Your task to perform on an android device: Open Chrome and go to settings Image 0: 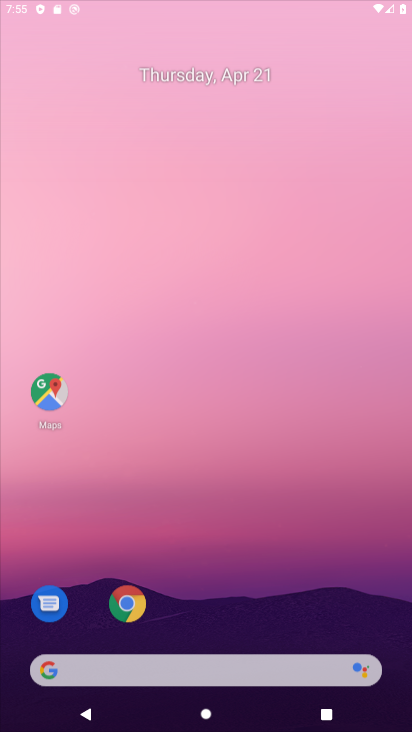
Step 0: drag from (234, 638) to (298, 191)
Your task to perform on an android device: Open Chrome and go to settings Image 1: 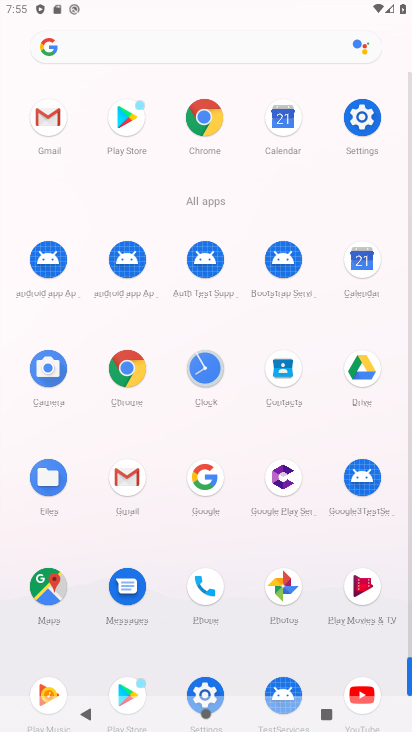
Step 1: click (357, 132)
Your task to perform on an android device: Open Chrome and go to settings Image 2: 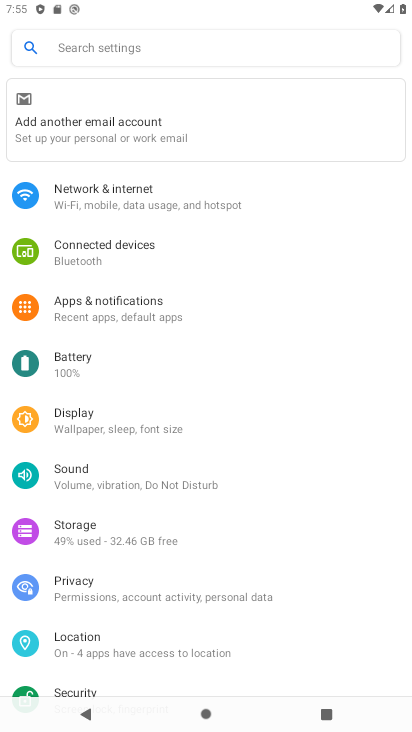
Step 2: press home button
Your task to perform on an android device: Open Chrome and go to settings Image 3: 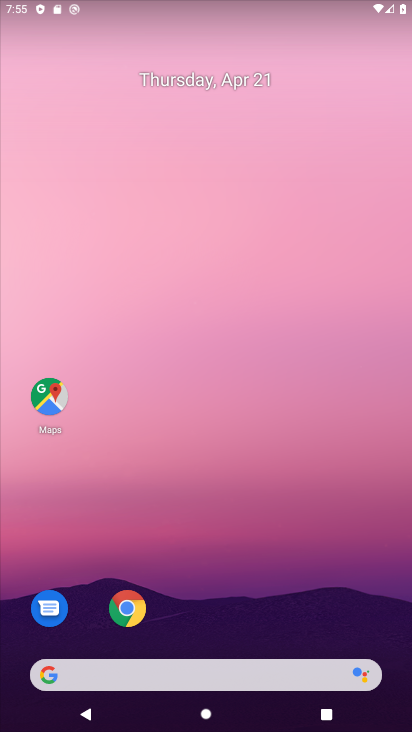
Step 3: click (127, 609)
Your task to perform on an android device: Open Chrome and go to settings Image 4: 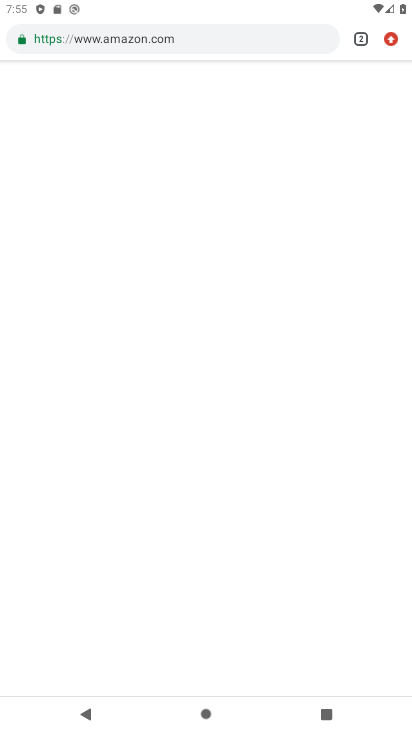
Step 4: click (393, 46)
Your task to perform on an android device: Open Chrome and go to settings Image 5: 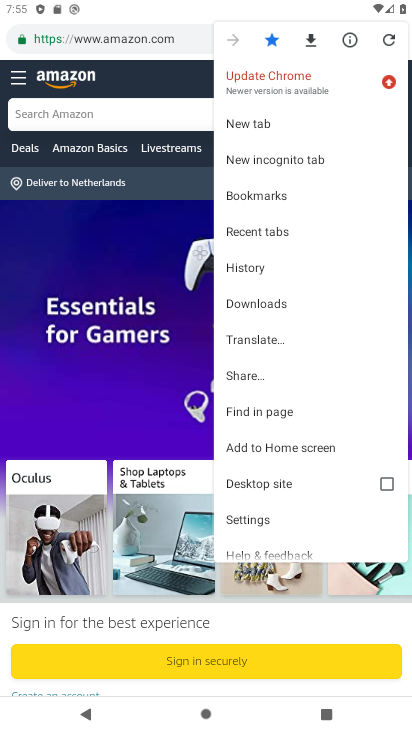
Step 5: drag from (248, 443) to (310, 199)
Your task to perform on an android device: Open Chrome and go to settings Image 6: 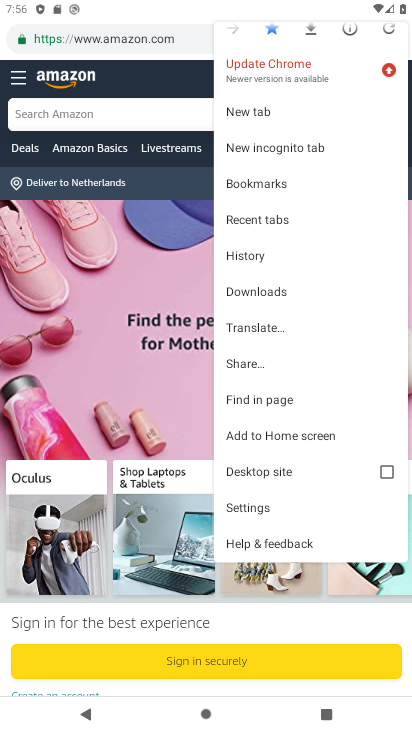
Step 6: click (242, 502)
Your task to perform on an android device: Open Chrome and go to settings Image 7: 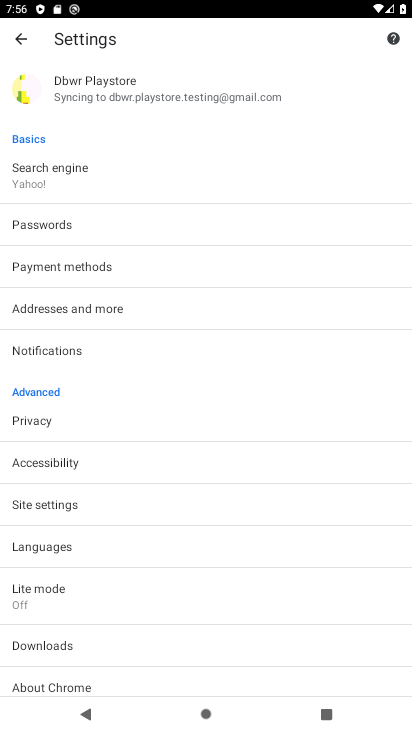
Step 7: drag from (176, 547) to (217, 342)
Your task to perform on an android device: Open Chrome and go to settings Image 8: 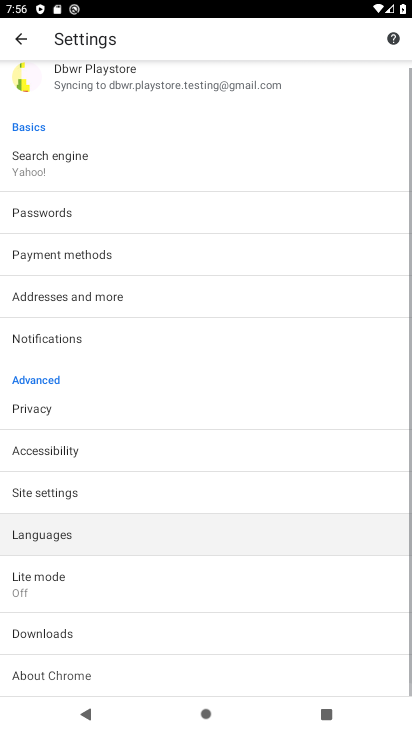
Step 8: click (222, 351)
Your task to perform on an android device: Open Chrome and go to settings Image 9: 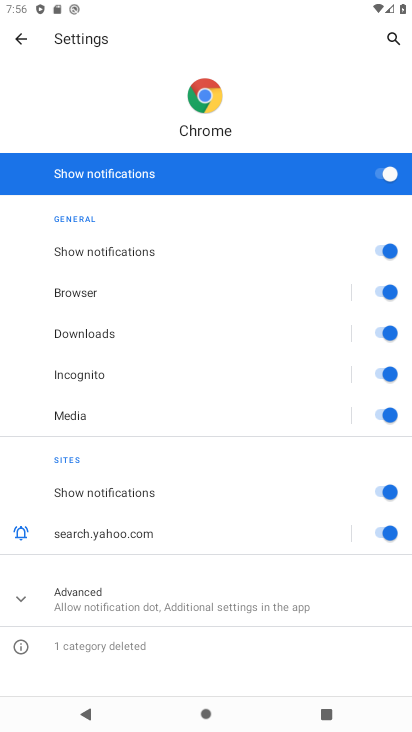
Step 9: task complete